Your task to perform on an android device: find snoozed emails in the gmail app Image 0: 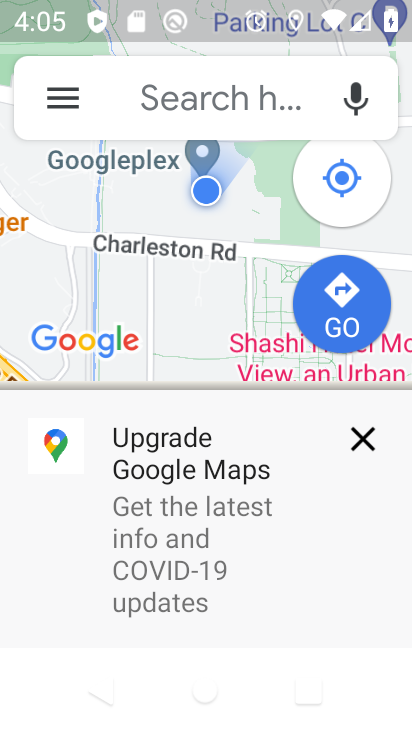
Step 0: press home button
Your task to perform on an android device: find snoozed emails in the gmail app Image 1: 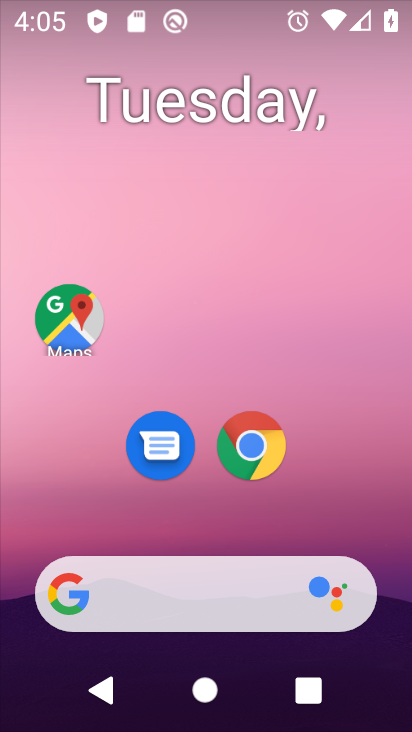
Step 1: drag from (384, 562) to (399, 152)
Your task to perform on an android device: find snoozed emails in the gmail app Image 2: 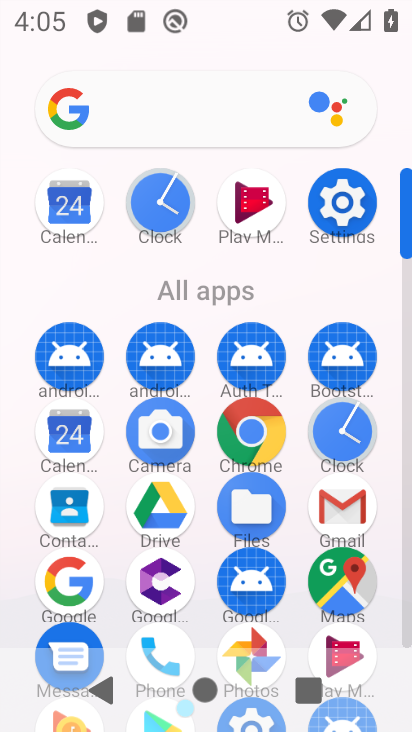
Step 2: click (354, 495)
Your task to perform on an android device: find snoozed emails in the gmail app Image 3: 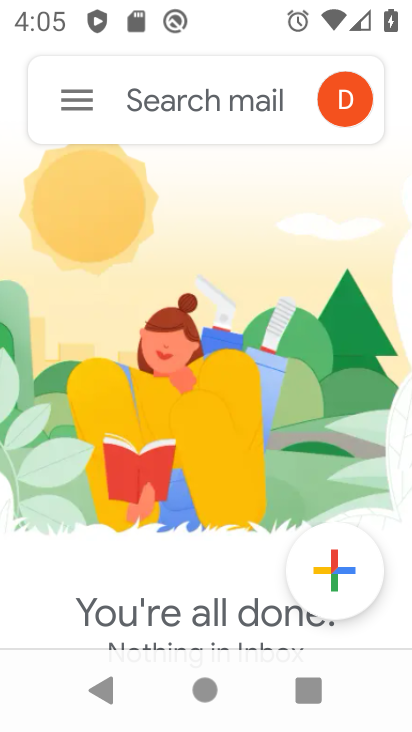
Step 3: click (89, 114)
Your task to perform on an android device: find snoozed emails in the gmail app Image 4: 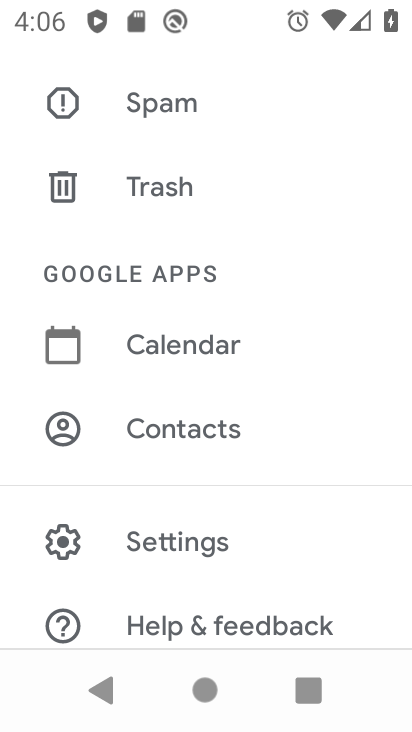
Step 4: drag from (178, 70) to (175, 458)
Your task to perform on an android device: find snoozed emails in the gmail app Image 5: 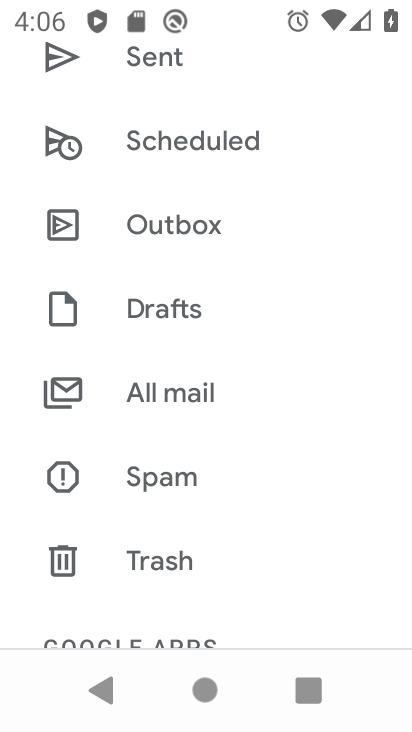
Step 5: drag from (197, 102) to (173, 307)
Your task to perform on an android device: find snoozed emails in the gmail app Image 6: 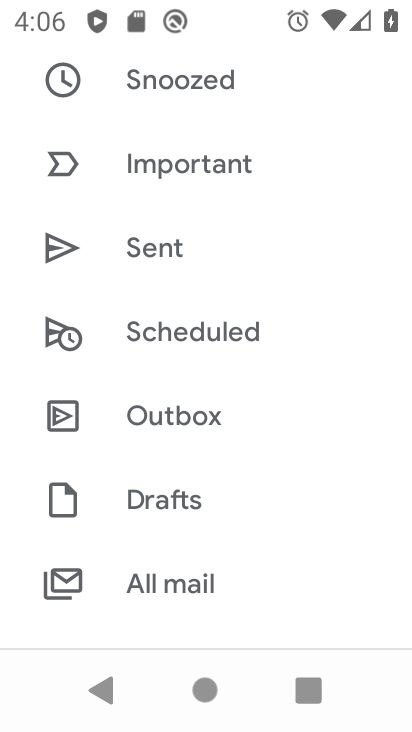
Step 6: click (216, 87)
Your task to perform on an android device: find snoozed emails in the gmail app Image 7: 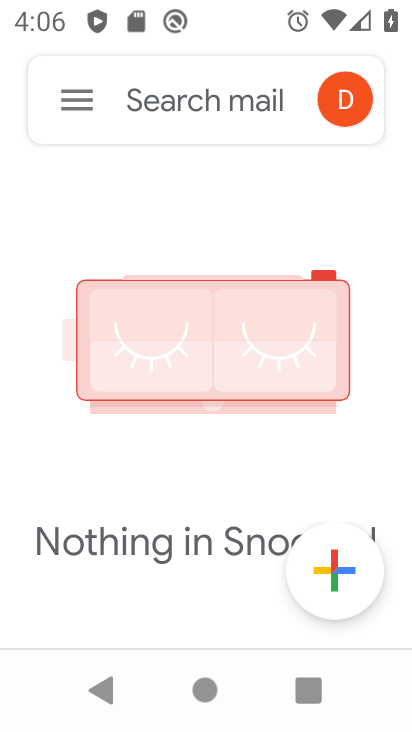
Step 7: task complete